Your task to perform on an android device: Search for "macbook pro 13 inch" on newegg, select the first entry, add it to the cart, then select checkout. Image 0: 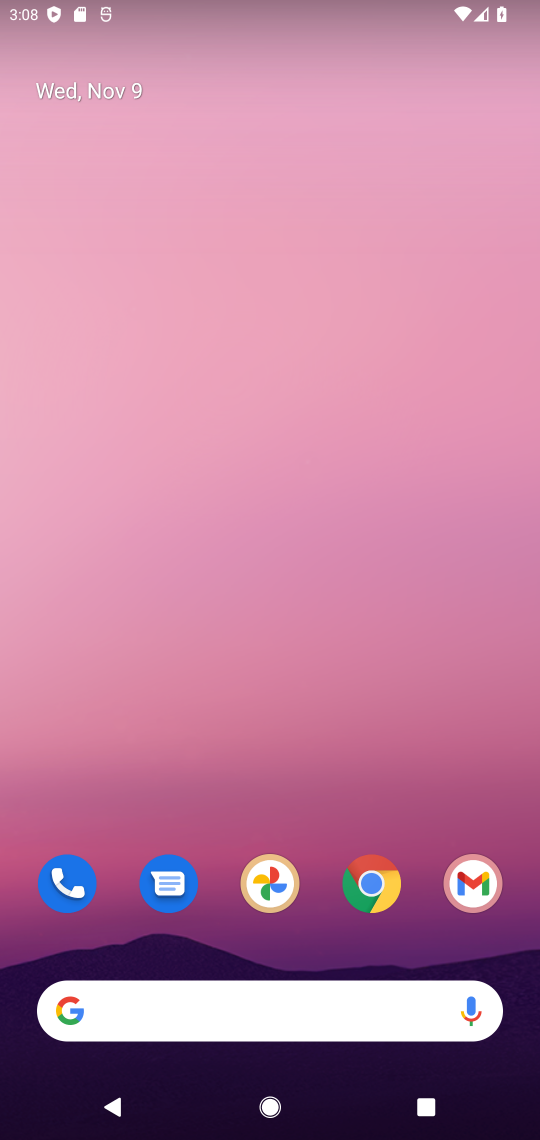
Step 0: click (364, 886)
Your task to perform on an android device: Search for "macbook pro 13 inch" on newegg, select the first entry, add it to the cart, then select checkout. Image 1: 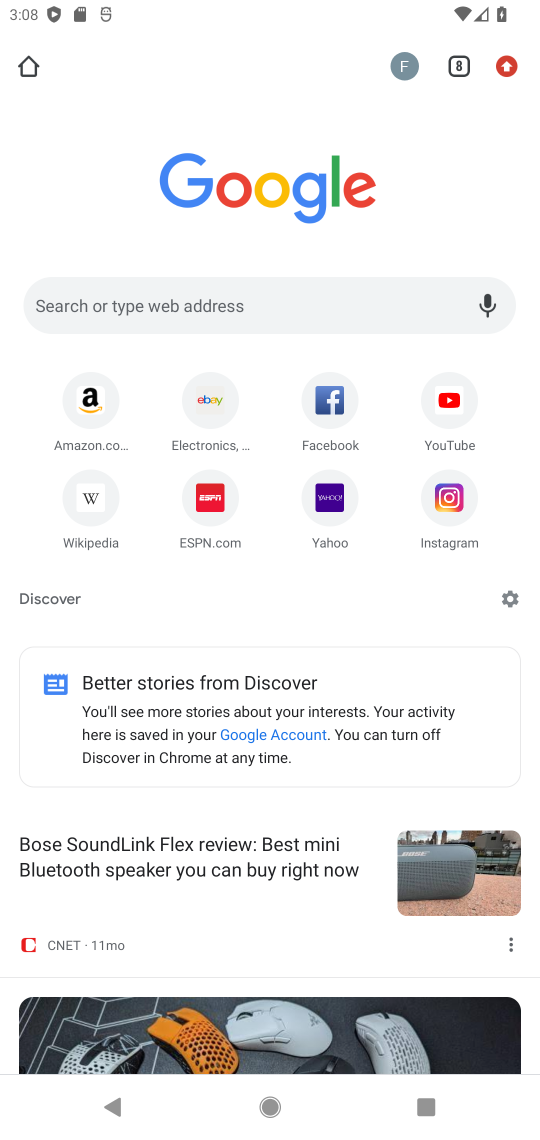
Step 1: click (460, 50)
Your task to perform on an android device: Search for "macbook pro 13 inch" on newegg, select the first entry, add it to the cart, then select checkout. Image 2: 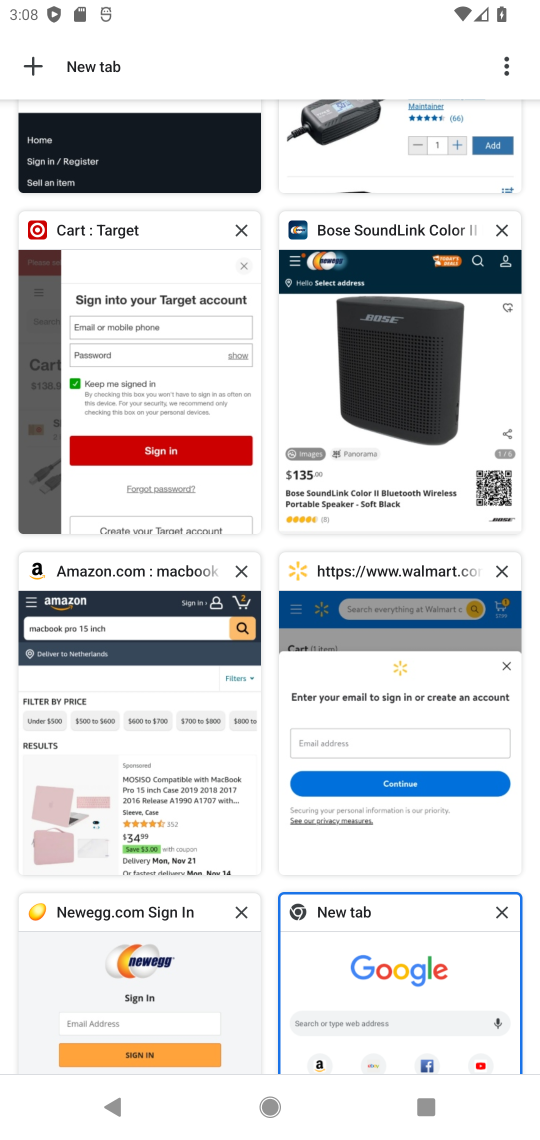
Step 2: click (347, 328)
Your task to perform on an android device: Search for "macbook pro 13 inch" on newegg, select the first entry, add it to the cart, then select checkout. Image 3: 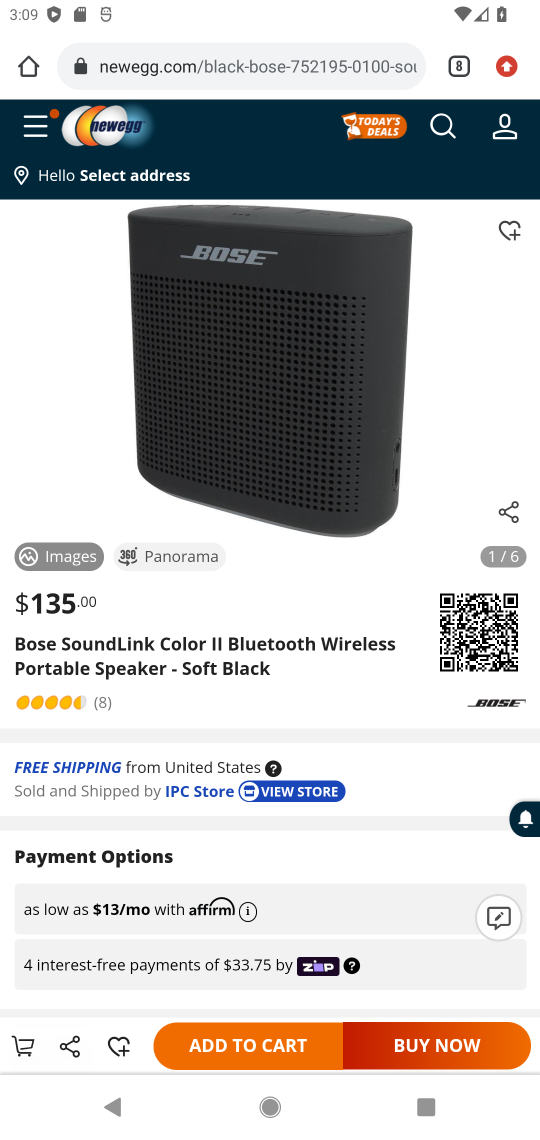
Step 3: click (449, 120)
Your task to perform on an android device: Search for "macbook pro 13 inch" on newegg, select the first entry, add it to the cart, then select checkout. Image 4: 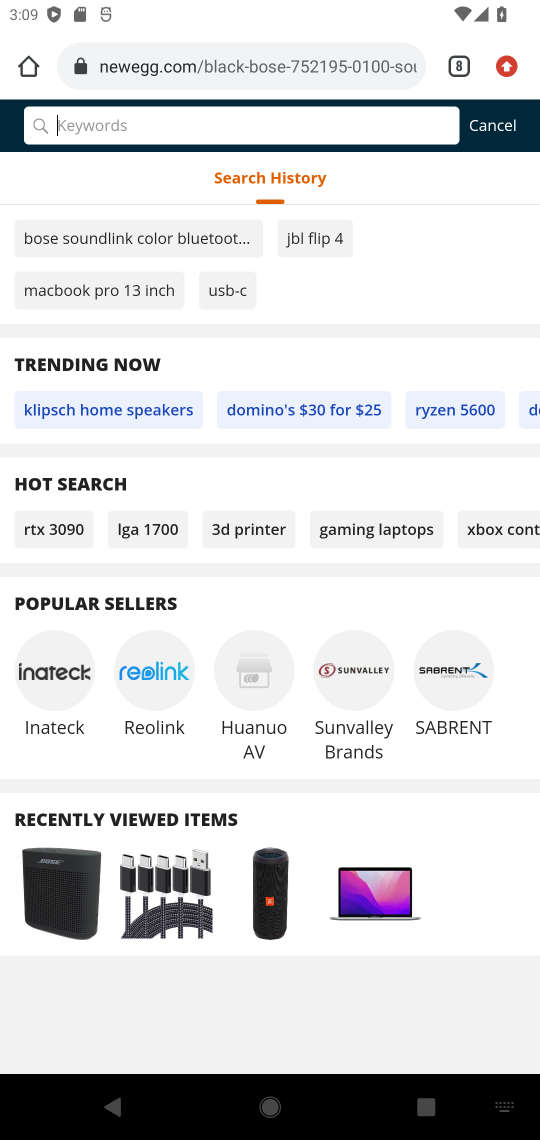
Step 4: type "macbook pro 13 inch"
Your task to perform on an android device: Search for "macbook pro 13 inch" on newegg, select the first entry, add it to the cart, then select checkout. Image 5: 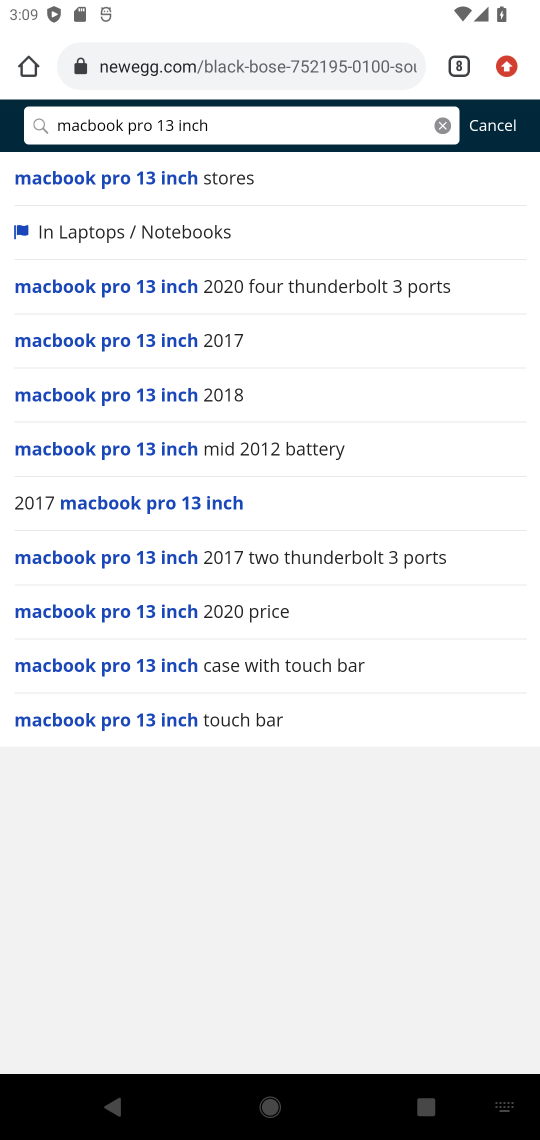
Step 5: click (144, 163)
Your task to perform on an android device: Search for "macbook pro 13 inch" on newegg, select the first entry, add it to the cart, then select checkout. Image 6: 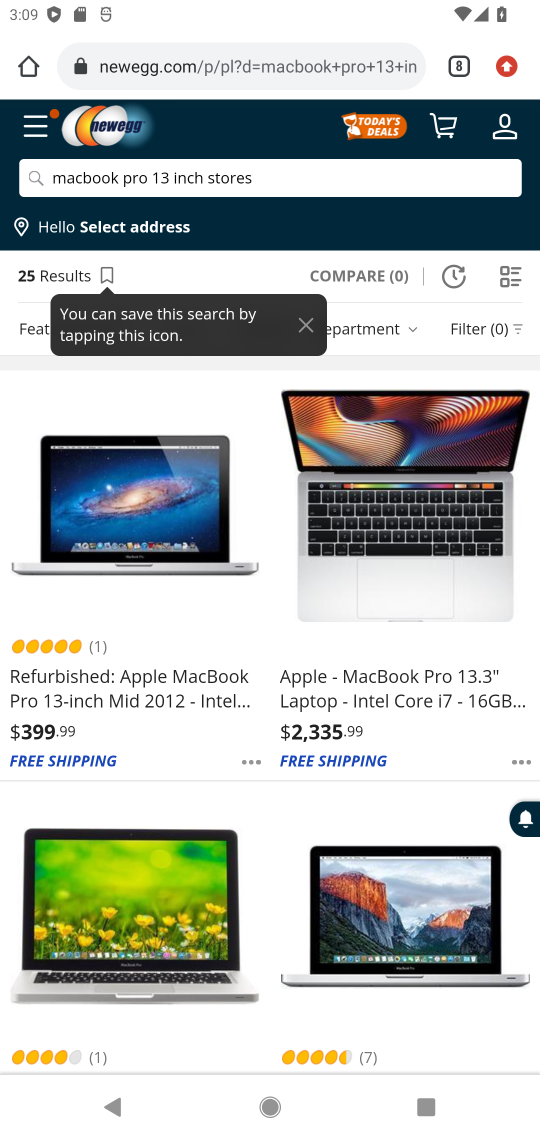
Step 6: click (188, 691)
Your task to perform on an android device: Search for "macbook pro 13 inch" on newegg, select the first entry, add it to the cart, then select checkout. Image 7: 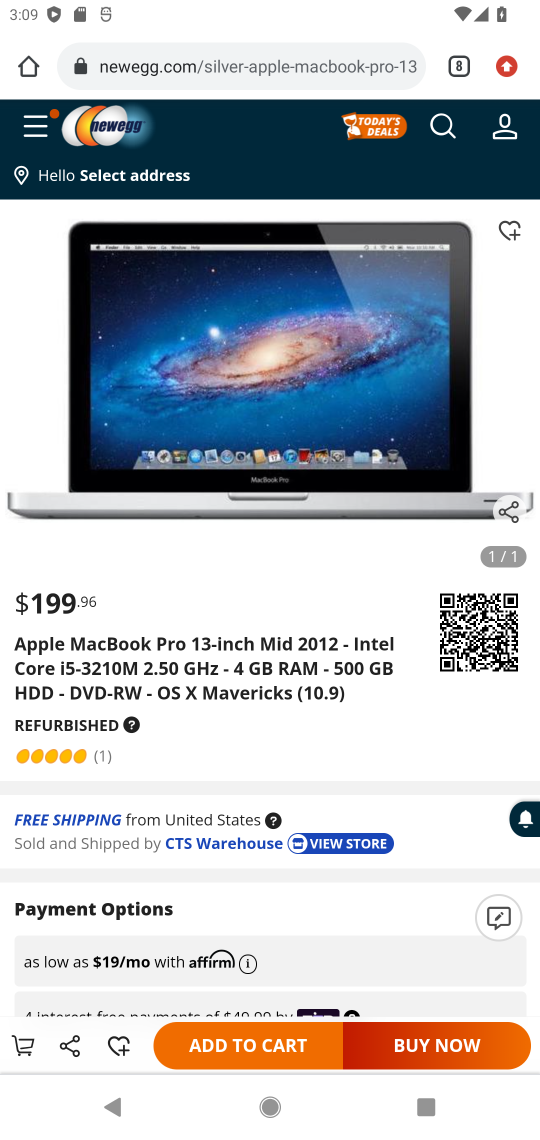
Step 7: click (232, 1049)
Your task to perform on an android device: Search for "macbook pro 13 inch" on newegg, select the first entry, add it to the cart, then select checkout. Image 8: 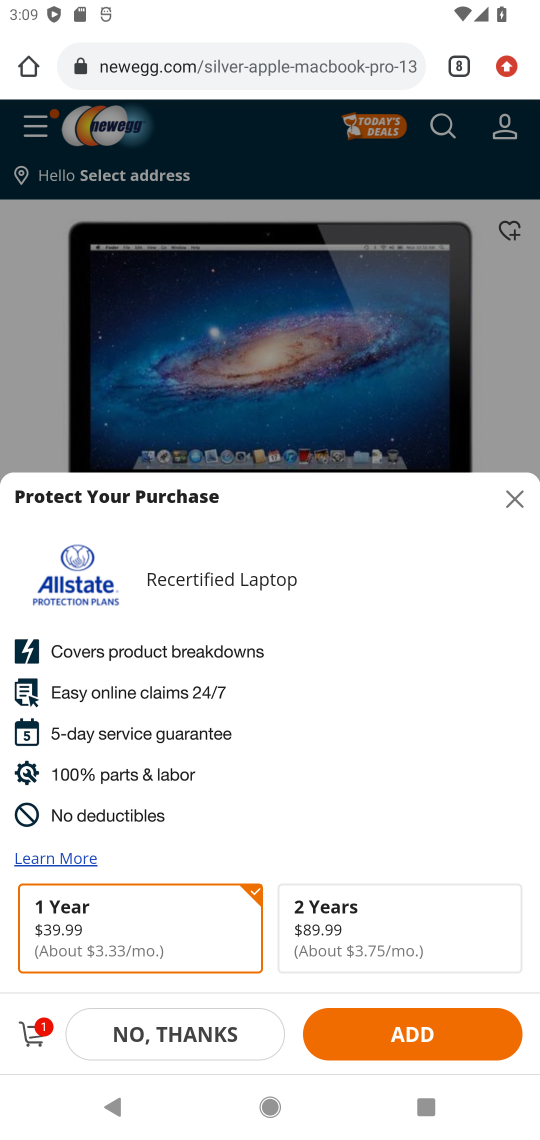
Step 8: click (29, 1032)
Your task to perform on an android device: Search for "macbook pro 13 inch" on newegg, select the first entry, add it to the cart, then select checkout. Image 9: 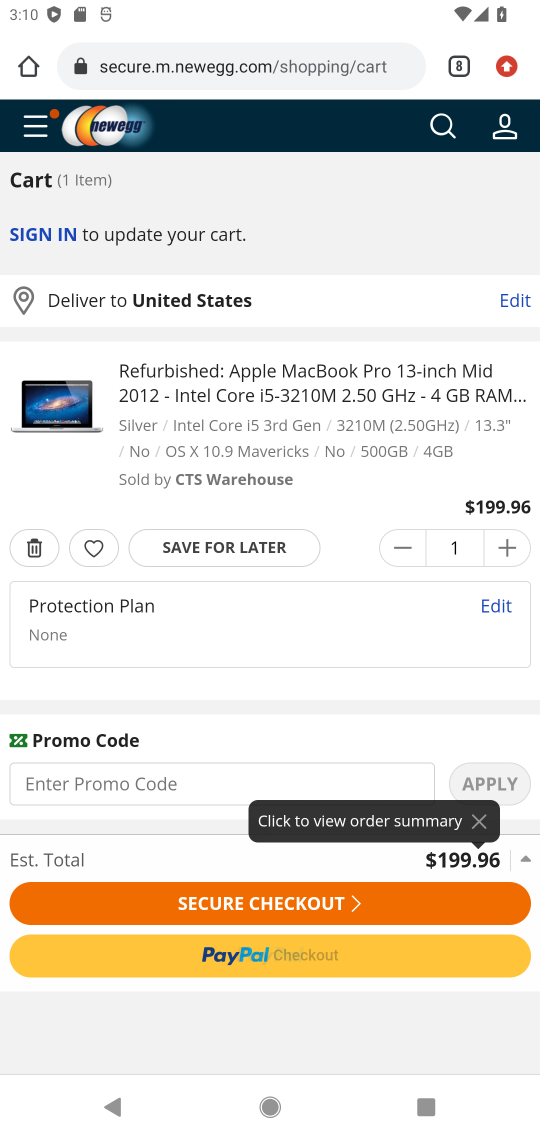
Step 9: click (251, 907)
Your task to perform on an android device: Search for "macbook pro 13 inch" on newegg, select the first entry, add it to the cart, then select checkout. Image 10: 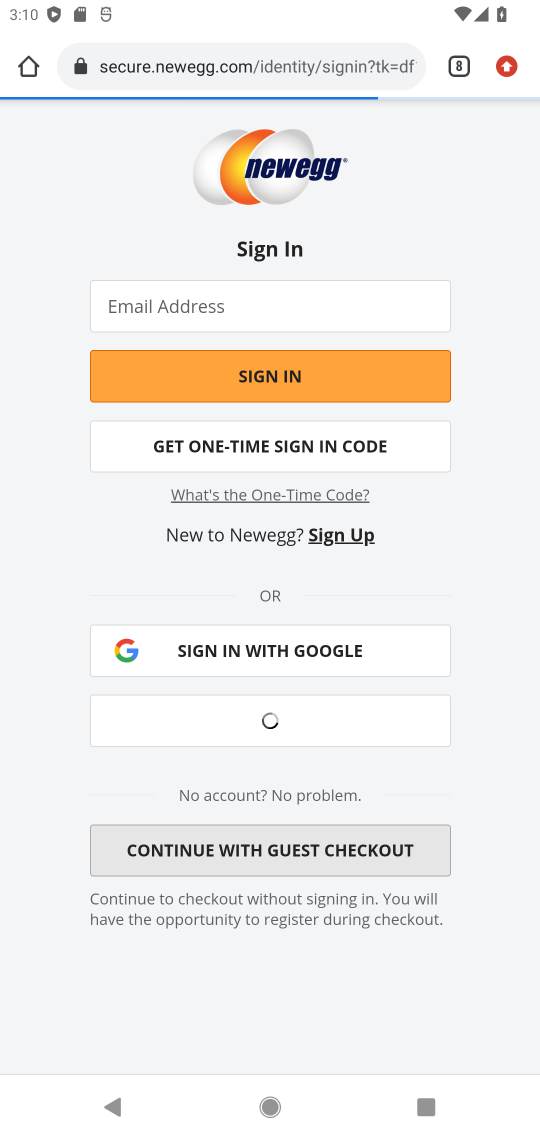
Step 10: task complete